Your task to perform on an android device: Go to Android settings Image 0: 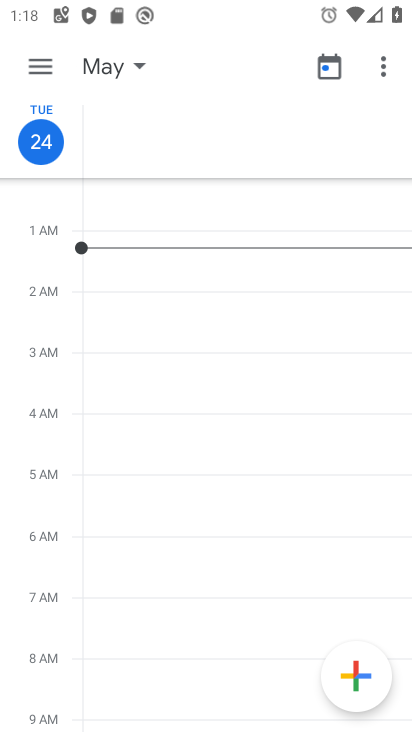
Step 0: press home button
Your task to perform on an android device: Go to Android settings Image 1: 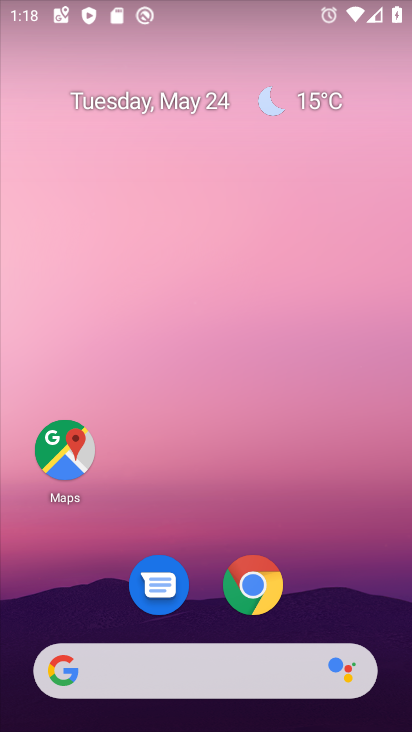
Step 1: drag from (212, 524) to (231, 51)
Your task to perform on an android device: Go to Android settings Image 2: 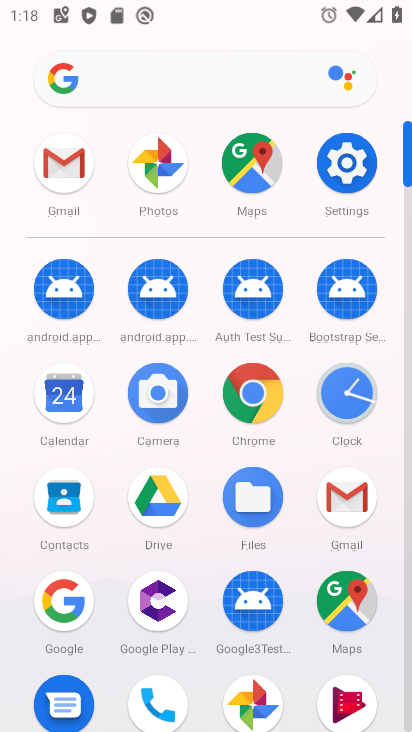
Step 2: click (334, 165)
Your task to perform on an android device: Go to Android settings Image 3: 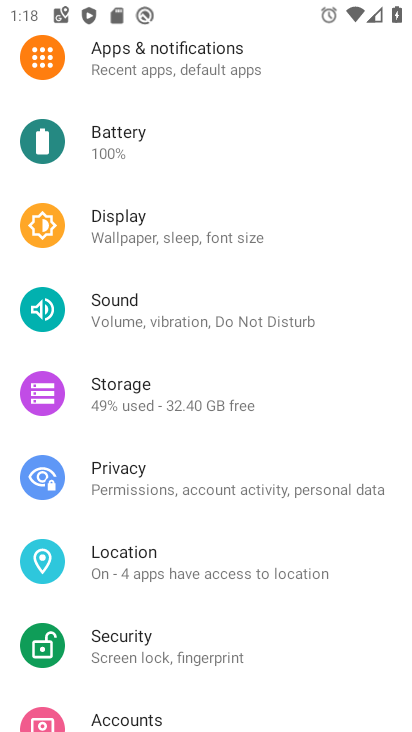
Step 3: drag from (291, 564) to (302, 51)
Your task to perform on an android device: Go to Android settings Image 4: 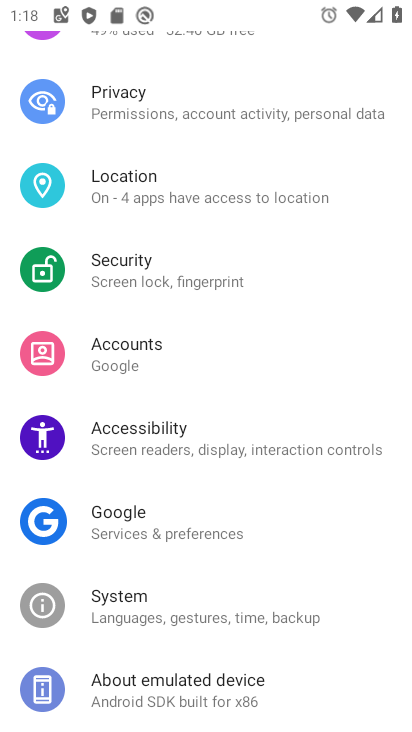
Step 4: click (240, 692)
Your task to perform on an android device: Go to Android settings Image 5: 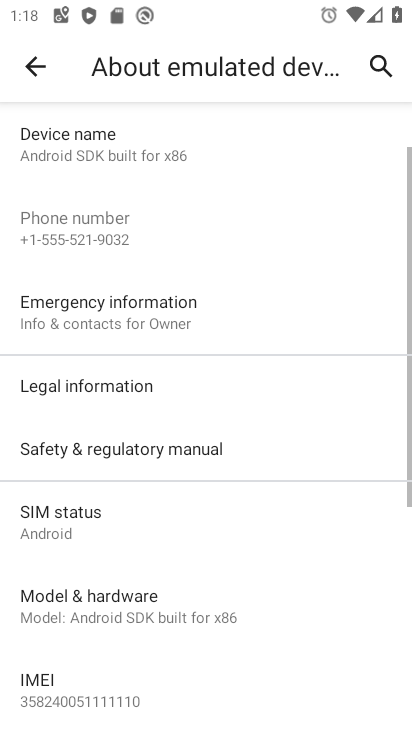
Step 5: task complete